Your task to perform on an android device: add a contact Image 0: 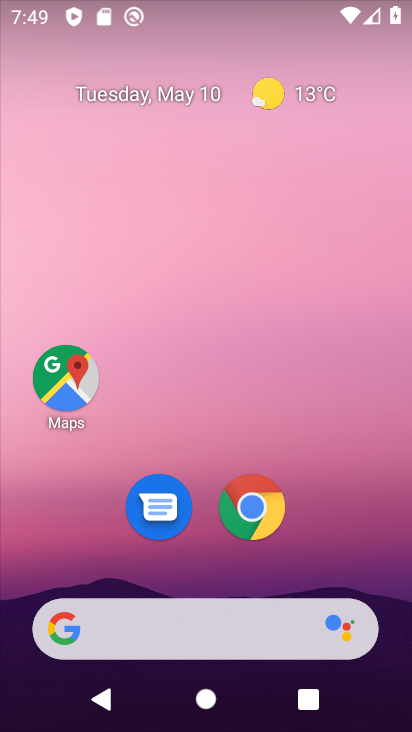
Step 0: drag from (103, 590) to (256, 164)
Your task to perform on an android device: add a contact Image 1: 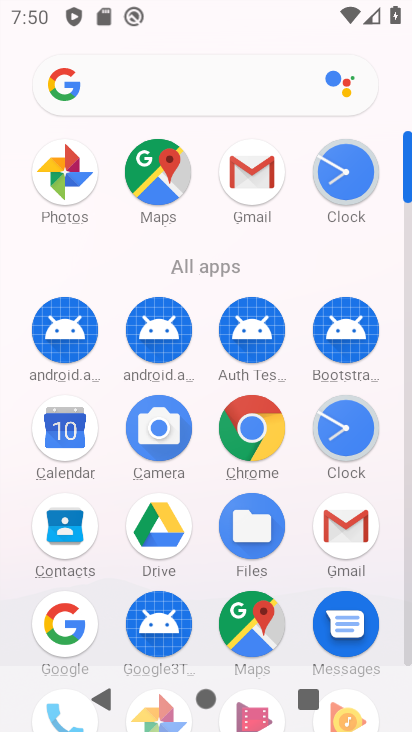
Step 1: click (79, 539)
Your task to perform on an android device: add a contact Image 2: 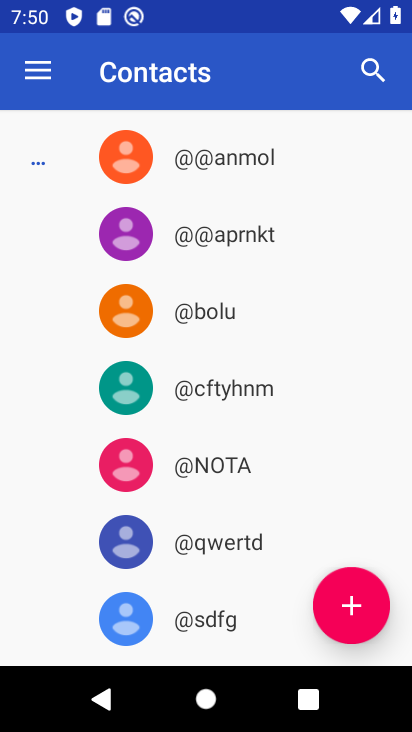
Step 2: click (364, 618)
Your task to perform on an android device: add a contact Image 3: 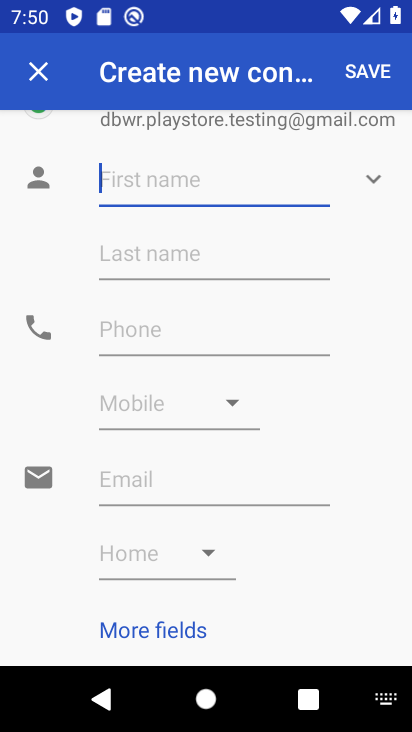
Step 3: type "xxxxxxxxxxx"
Your task to perform on an android device: add a contact Image 4: 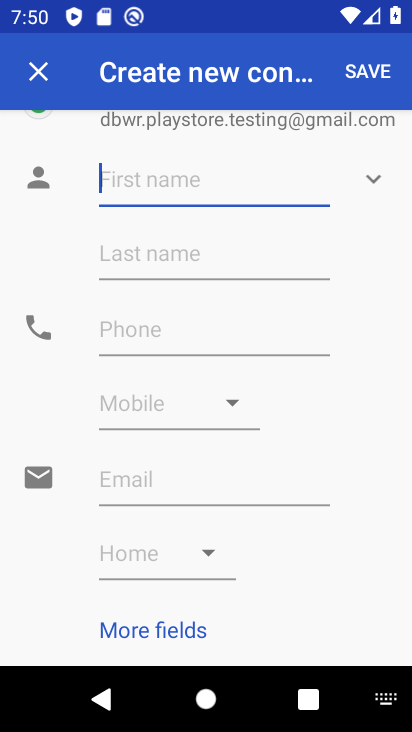
Step 4: click (139, 337)
Your task to perform on an android device: add a contact Image 5: 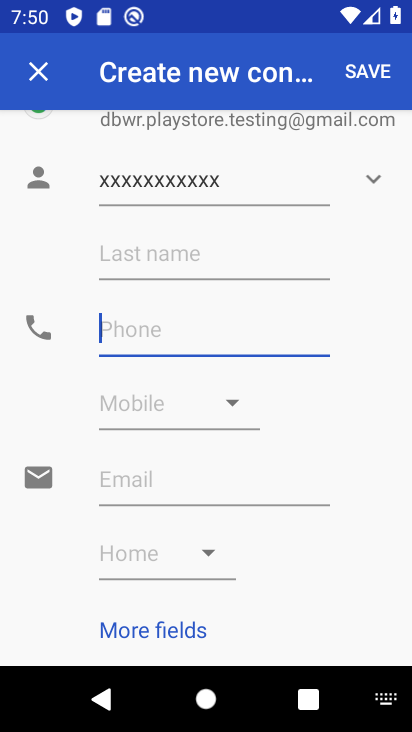
Step 5: type "28282828228"
Your task to perform on an android device: add a contact Image 6: 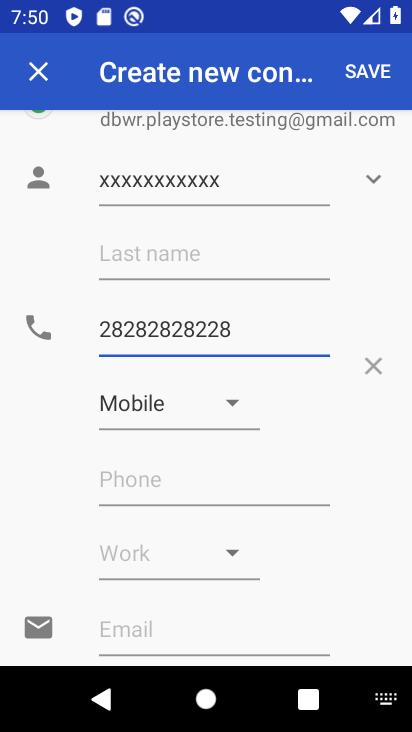
Step 6: click (395, 71)
Your task to perform on an android device: add a contact Image 7: 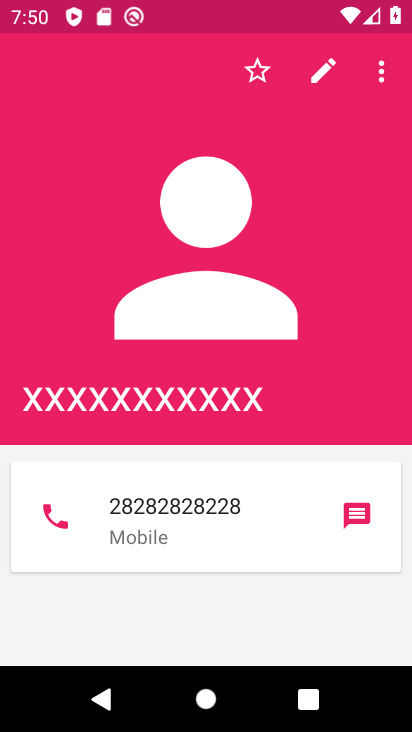
Step 7: task complete